Your task to perform on an android device: change notification settings in the gmail app Image 0: 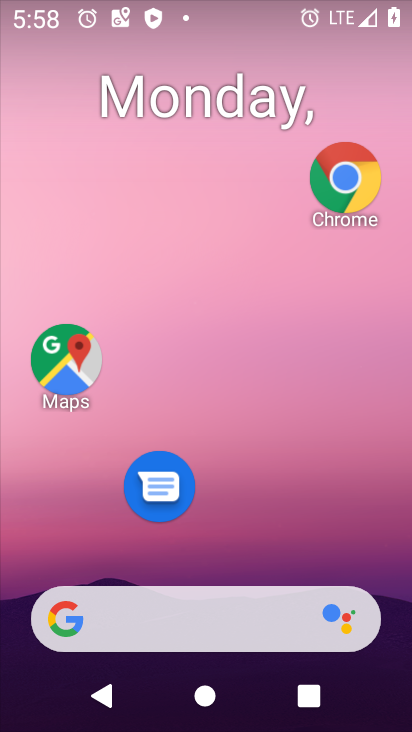
Step 0: drag from (361, 485) to (372, 64)
Your task to perform on an android device: change notification settings in the gmail app Image 1: 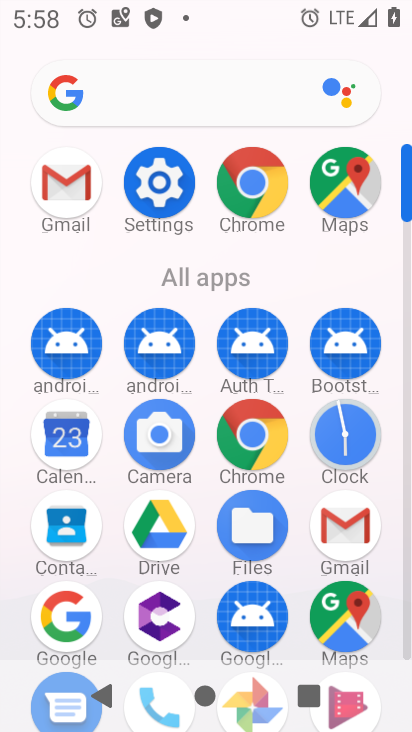
Step 1: click (319, 514)
Your task to perform on an android device: change notification settings in the gmail app Image 2: 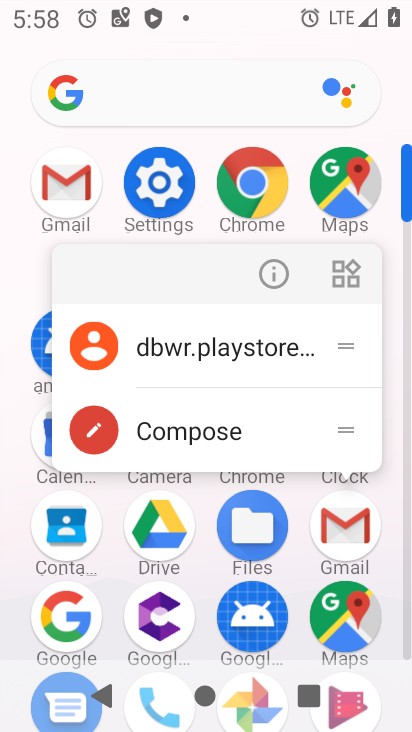
Step 2: click (282, 262)
Your task to perform on an android device: change notification settings in the gmail app Image 3: 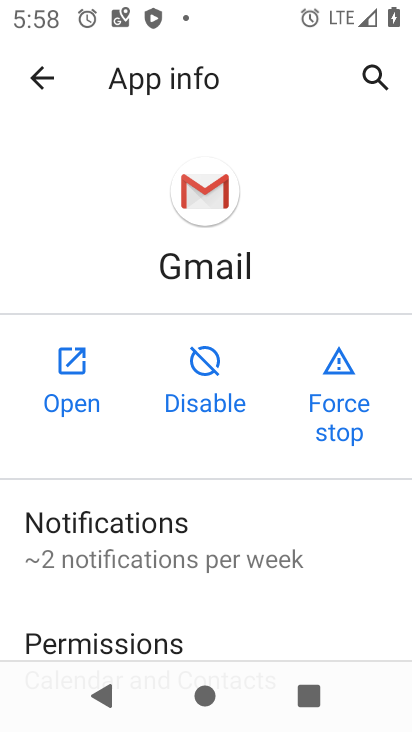
Step 3: click (113, 518)
Your task to perform on an android device: change notification settings in the gmail app Image 4: 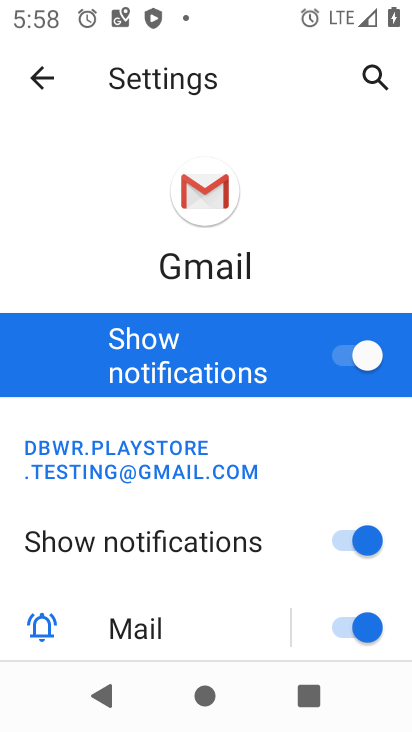
Step 4: click (358, 354)
Your task to perform on an android device: change notification settings in the gmail app Image 5: 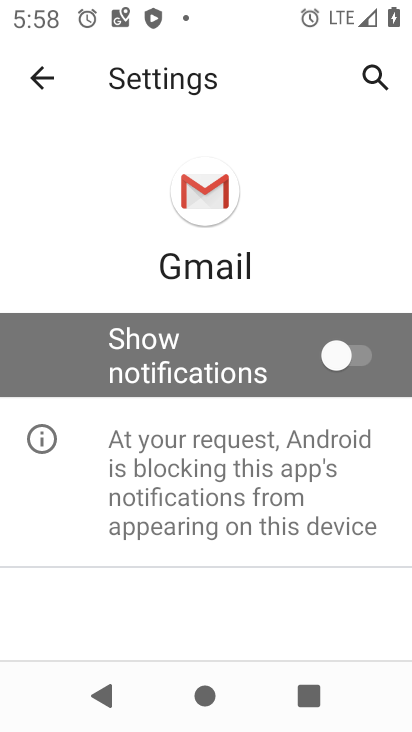
Step 5: task complete